Your task to perform on an android device: Show me popular videos on Youtube Image 0: 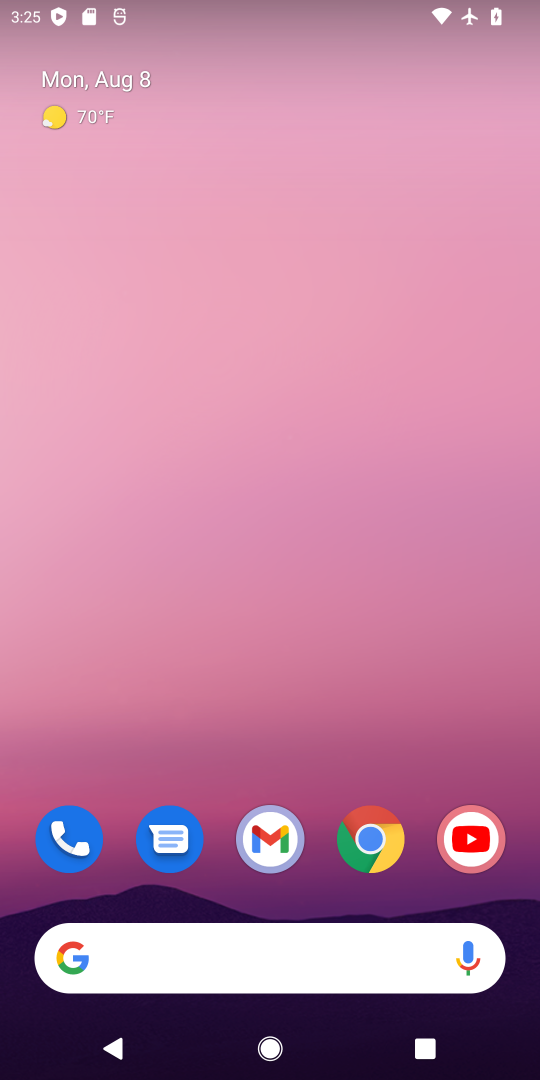
Step 0: press home button
Your task to perform on an android device: Show me popular videos on Youtube Image 1: 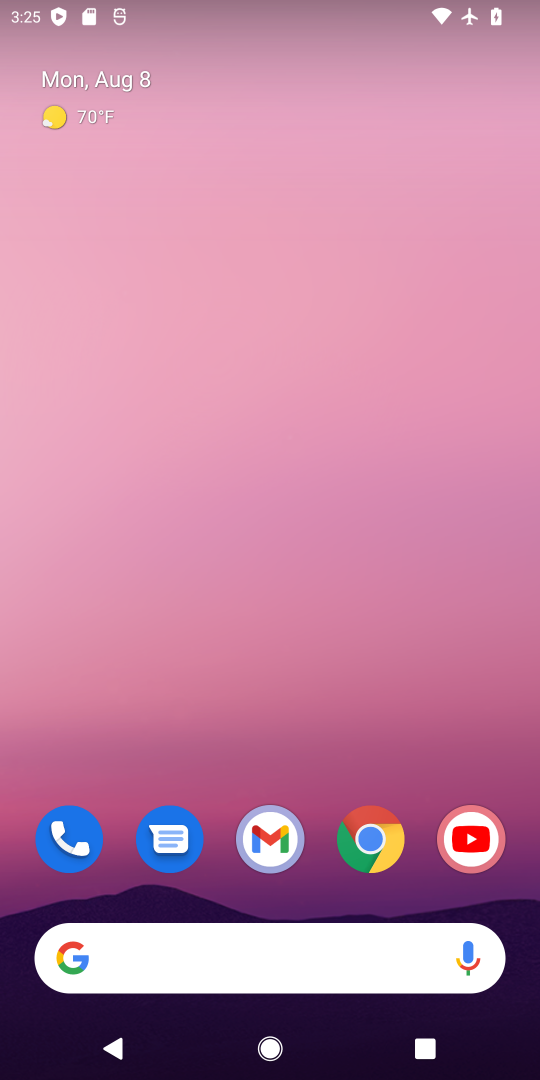
Step 1: drag from (404, 796) to (460, 240)
Your task to perform on an android device: Show me popular videos on Youtube Image 2: 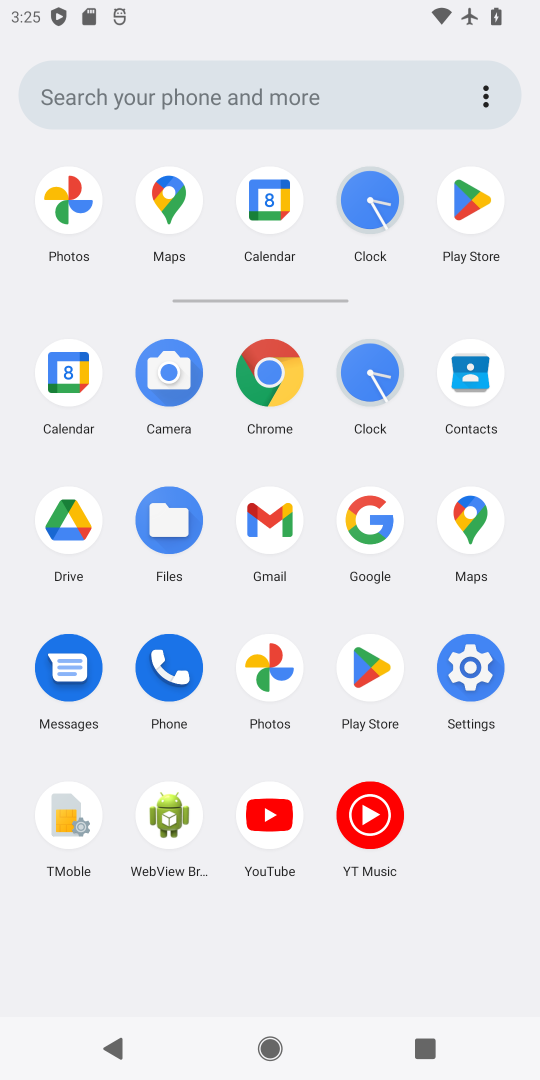
Step 2: click (275, 821)
Your task to perform on an android device: Show me popular videos on Youtube Image 3: 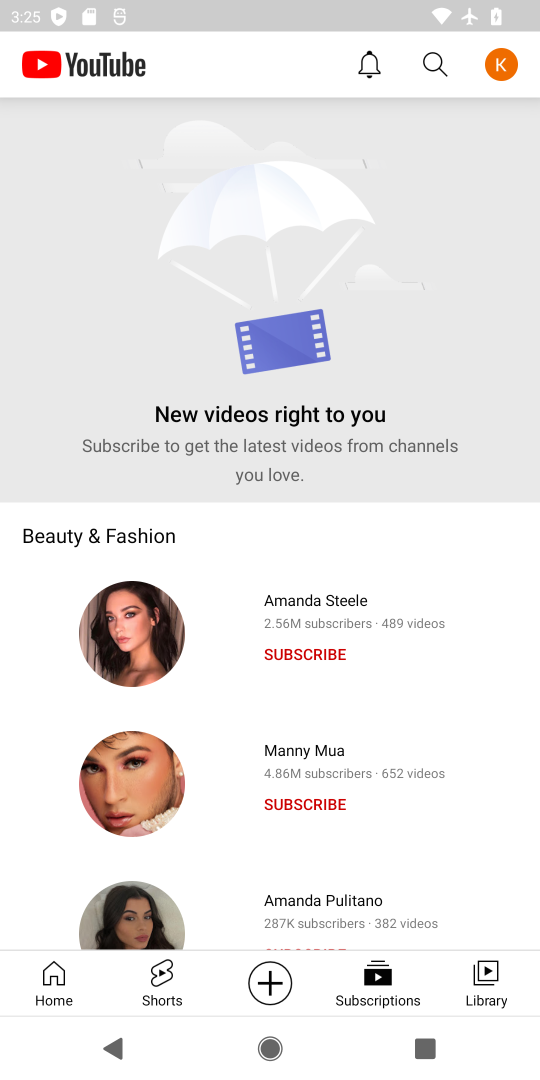
Step 3: click (61, 970)
Your task to perform on an android device: Show me popular videos on Youtube Image 4: 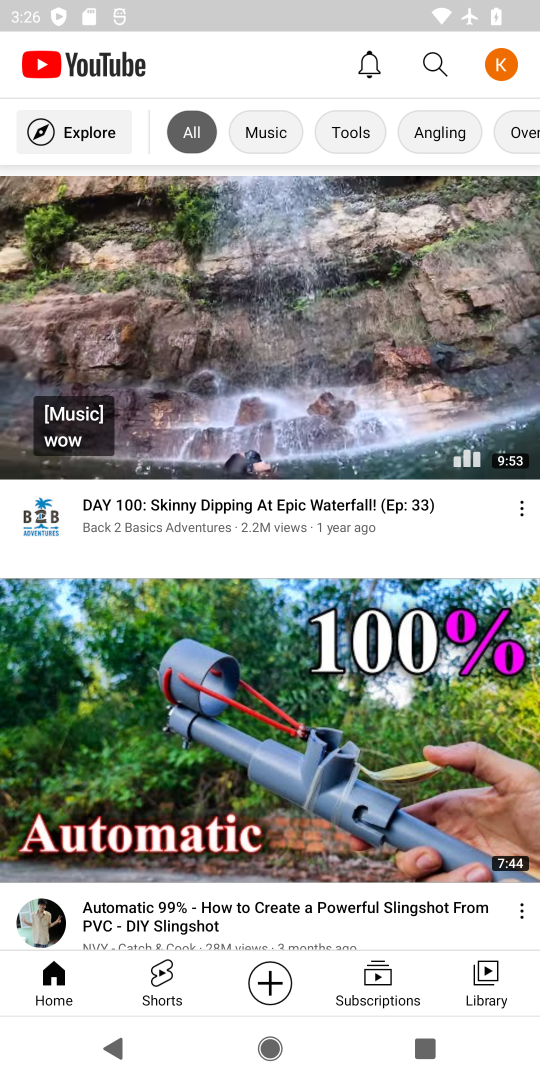
Step 4: task complete